Your task to perform on an android device: What's on my calendar tomorrow? Image 0: 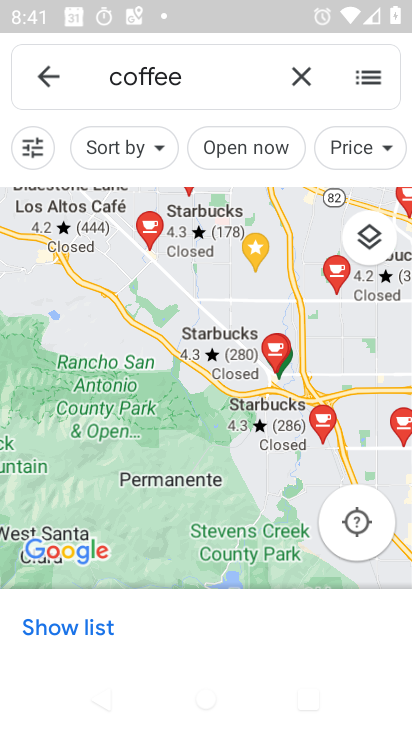
Step 0: press home button
Your task to perform on an android device: What's on my calendar tomorrow? Image 1: 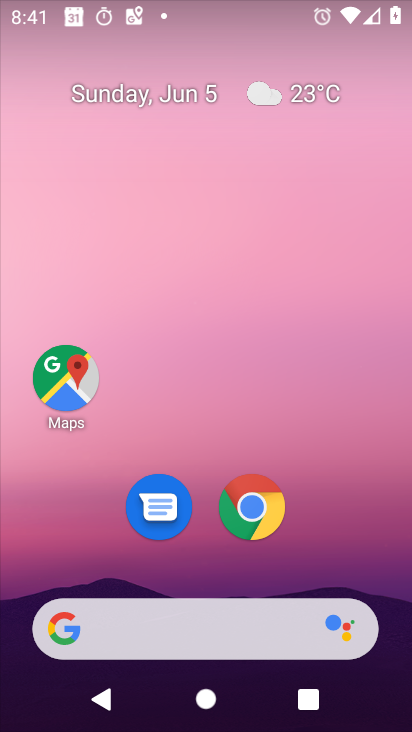
Step 1: drag from (217, 637) to (207, 218)
Your task to perform on an android device: What's on my calendar tomorrow? Image 2: 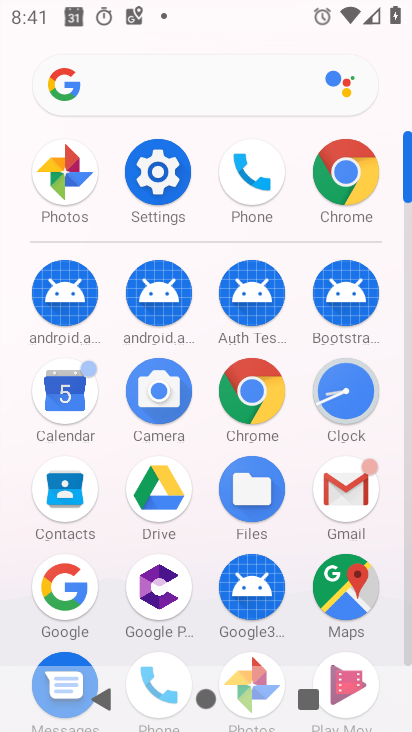
Step 2: click (123, 79)
Your task to perform on an android device: What's on my calendar tomorrow? Image 3: 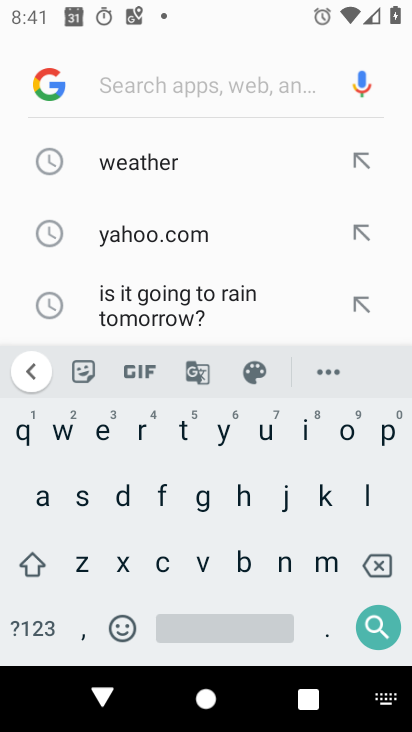
Step 3: press home button
Your task to perform on an android device: What's on my calendar tomorrow? Image 4: 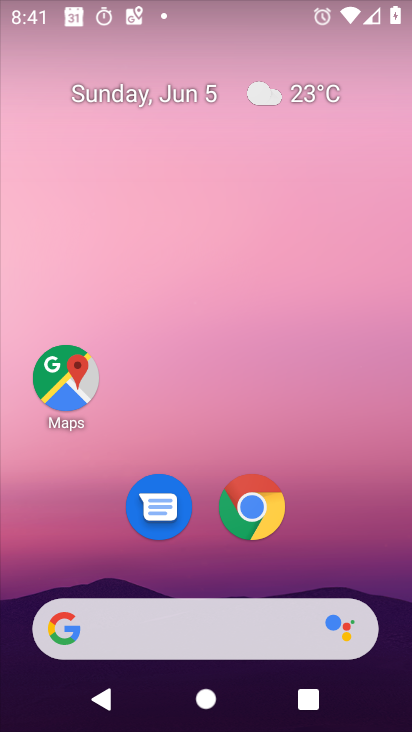
Step 4: drag from (247, 668) to (253, 173)
Your task to perform on an android device: What's on my calendar tomorrow? Image 5: 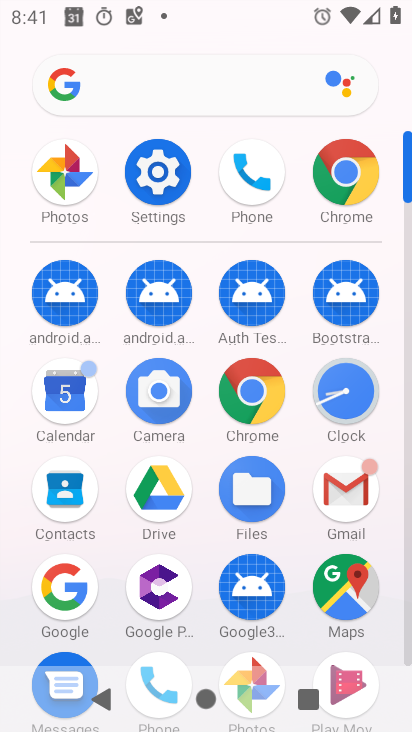
Step 5: click (71, 403)
Your task to perform on an android device: What's on my calendar tomorrow? Image 6: 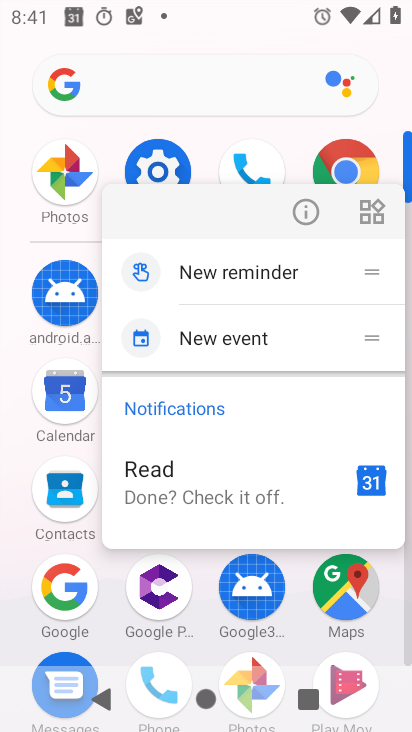
Step 6: click (66, 391)
Your task to perform on an android device: What's on my calendar tomorrow? Image 7: 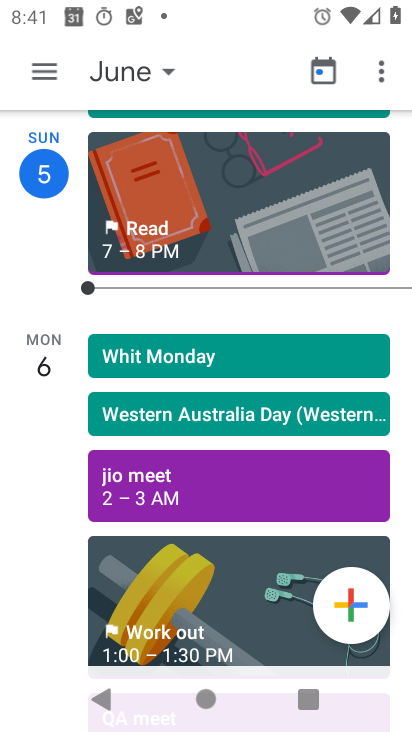
Step 7: task complete